Your task to perform on an android device: Go to sound settings Image 0: 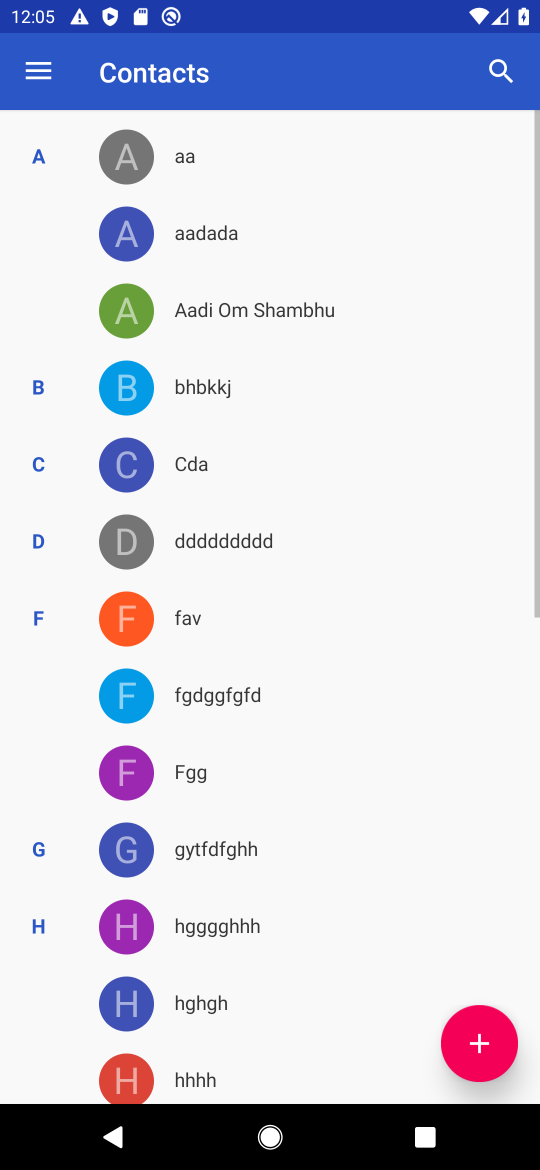
Step 0: press back button
Your task to perform on an android device: Go to sound settings Image 1: 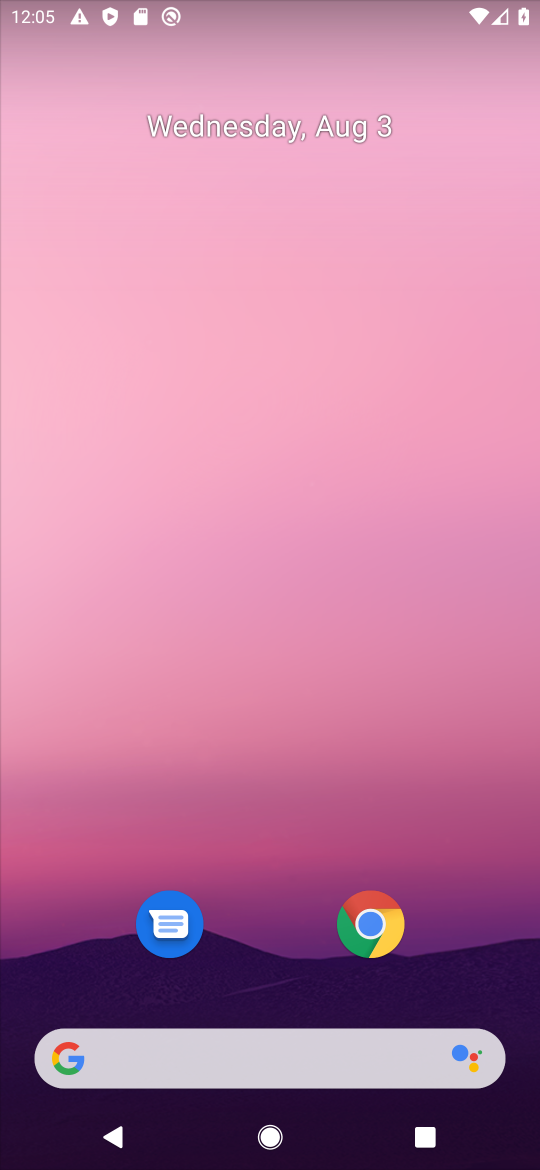
Step 1: drag from (261, 703) to (307, 17)
Your task to perform on an android device: Go to sound settings Image 2: 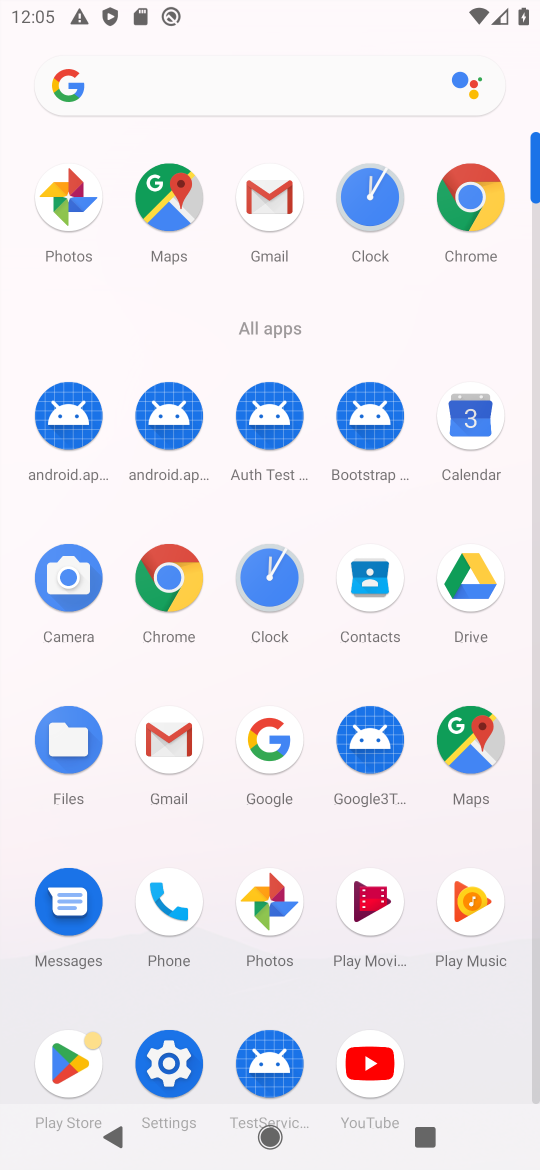
Step 2: click (146, 1044)
Your task to perform on an android device: Go to sound settings Image 3: 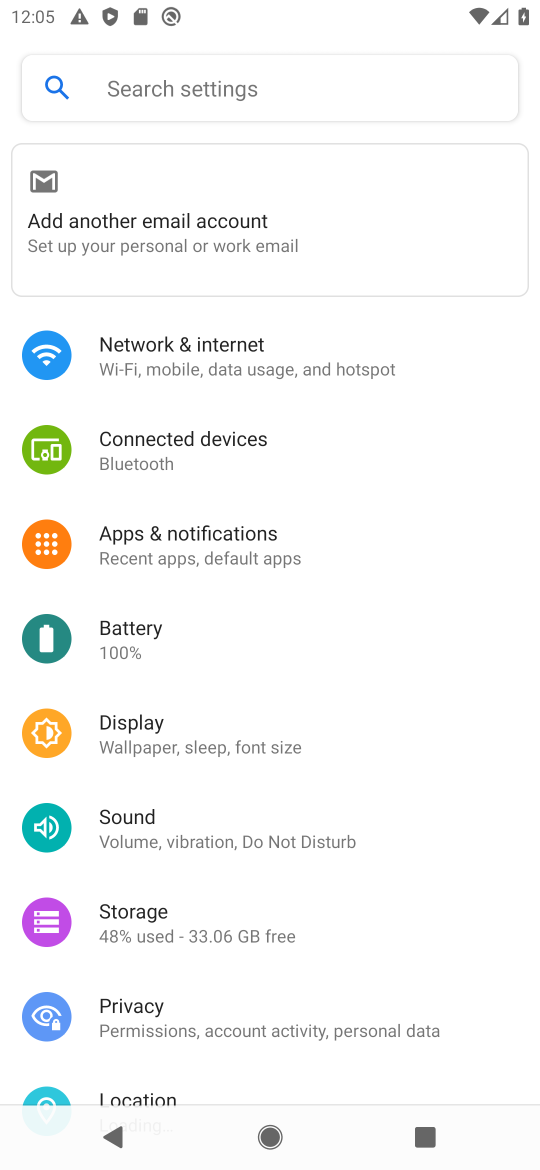
Step 3: click (156, 827)
Your task to perform on an android device: Go to sound settings Image 4: 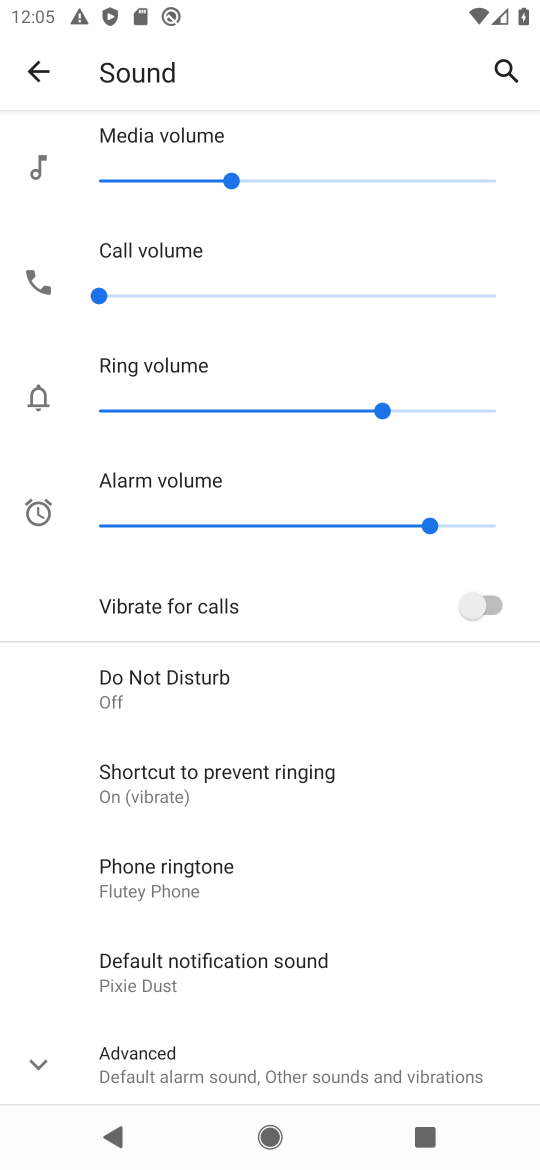
Step 4: task complete